Your task to perform on an android device: turn notification dots off Image 0: 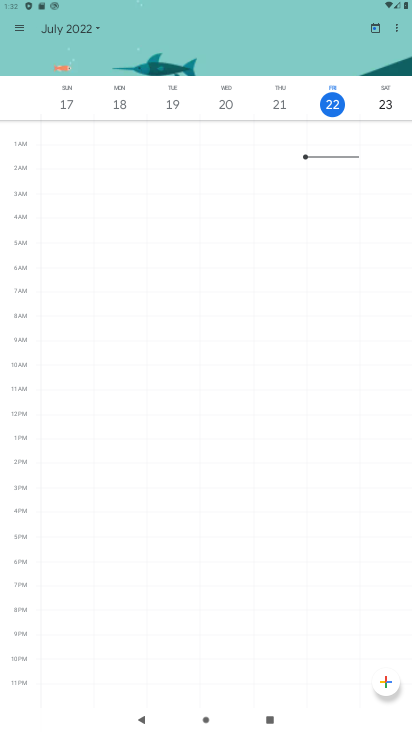
Step 0: press home button
Your task to perform on an android device: turn notification dots off Image 1: 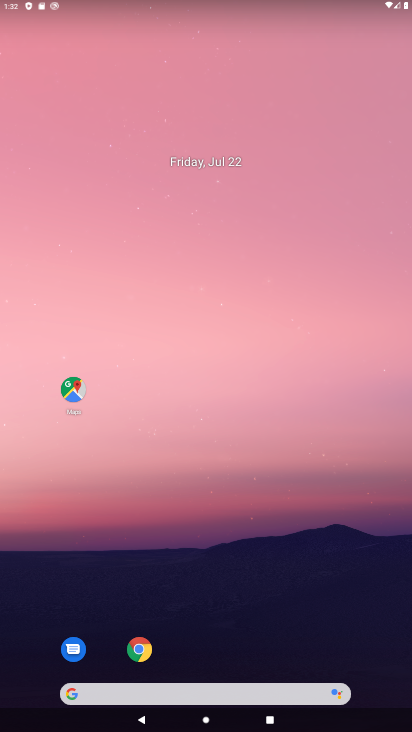
Step 1: click (237, 635)
Your task to perform on an android device: turn notification dots off Image 2: 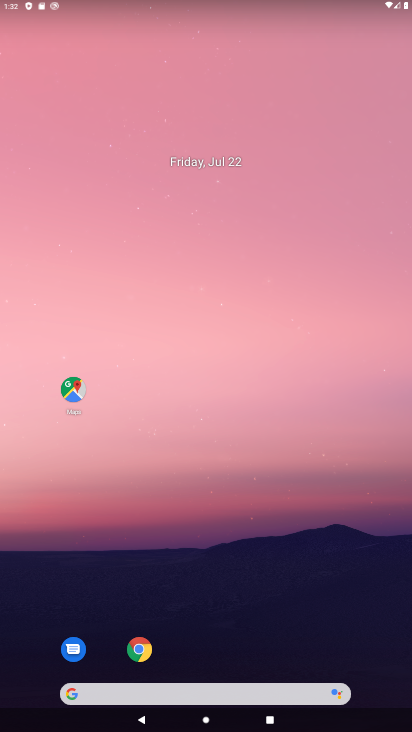
Step 2: drag from (237, 635) to (177, 200)
Your task to perform on an android device: turn notification dots off Image 3: 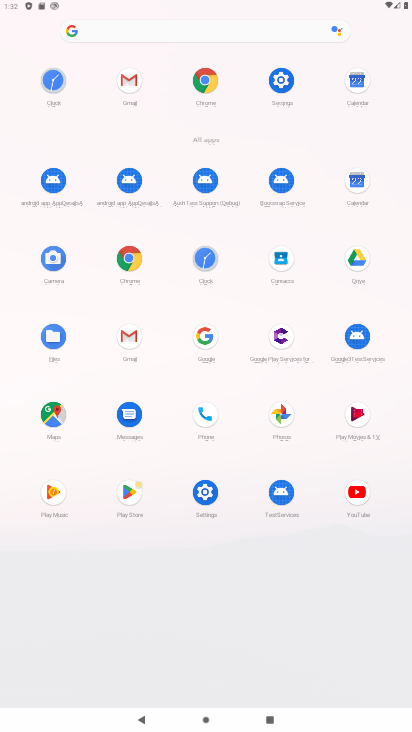
Step 3: click (203, 500)
Your task to perform on an android device: turn notification dots off Image 4: 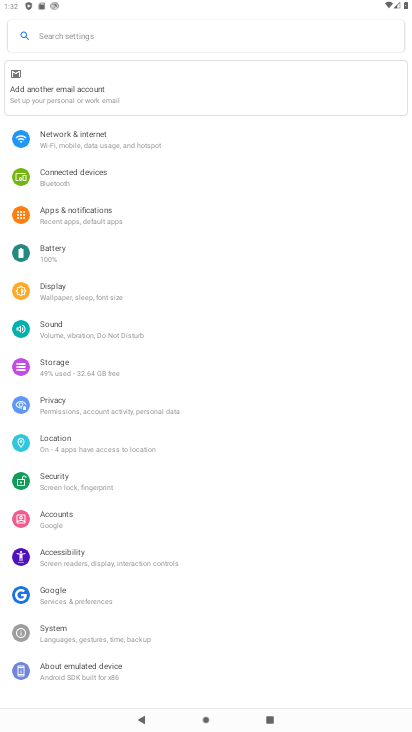
Step 4: click (110, 215)
Your task to perform on an android device: turn notification dots off Image 5: 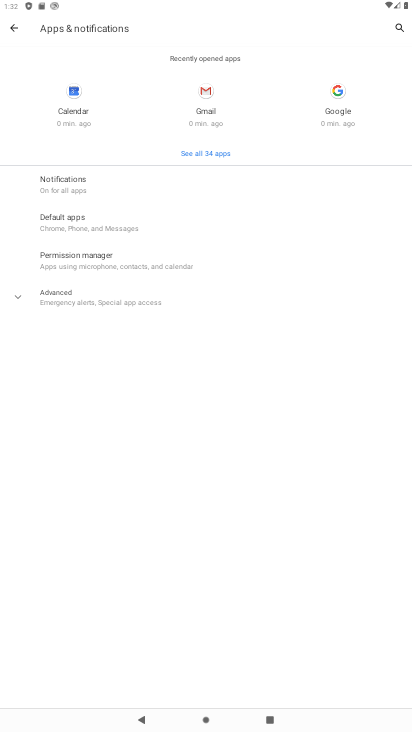
Step 5: click (110, 184)
Your task to perform on an android device: turn notification dots off Image 6: 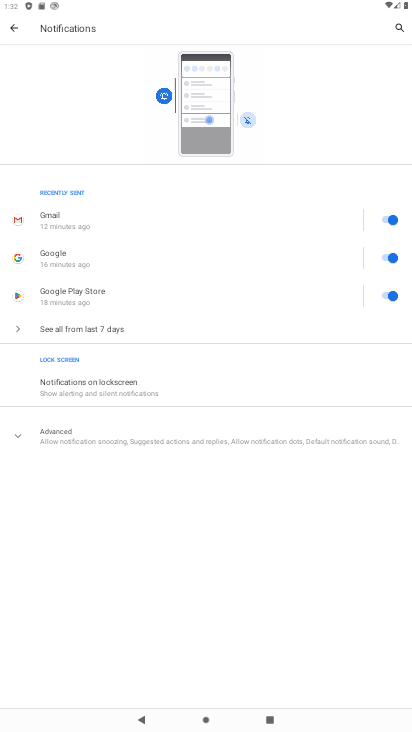
Step 6: click (115, 438)
Your task to perform on an android device: turn notification dots off Image 7: 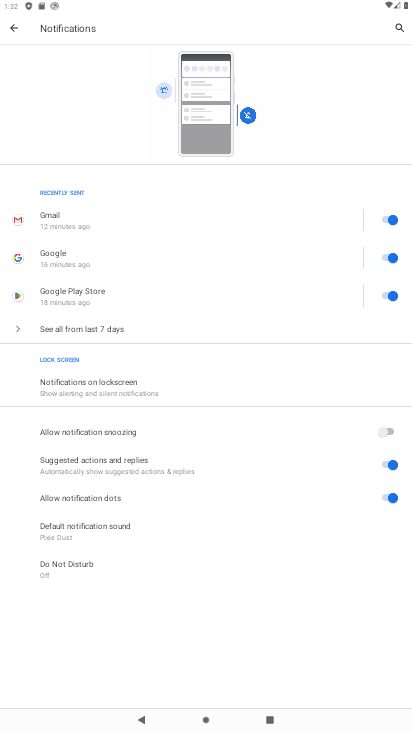
Step 7: click (381, 497)
Your task to perform on an android device: turn notification dots off Image 8: 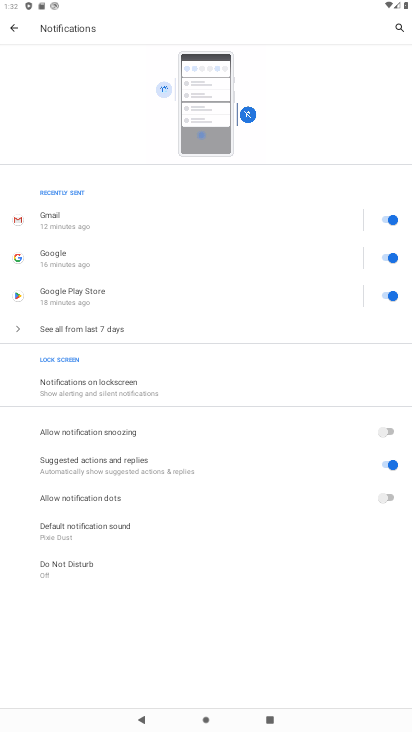
Step 8: task complete